Your task to perform on an android device: move a message to another label in the gmail app Image 0: 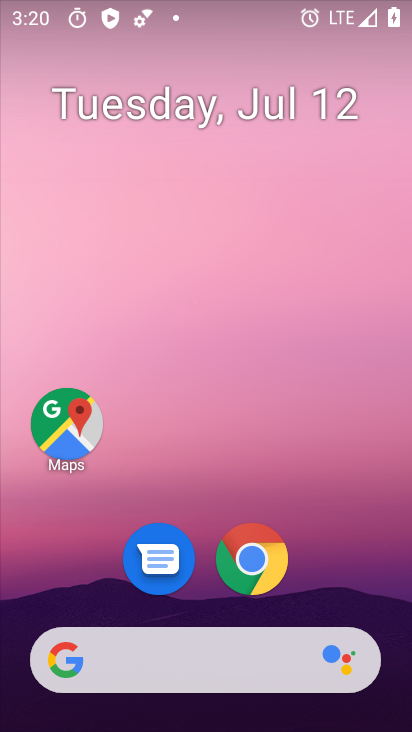
Step 0: drag from (366, 588) to (369, 204)
Your task to perform on an android device: move a message to another label in the gmail app Image 1: 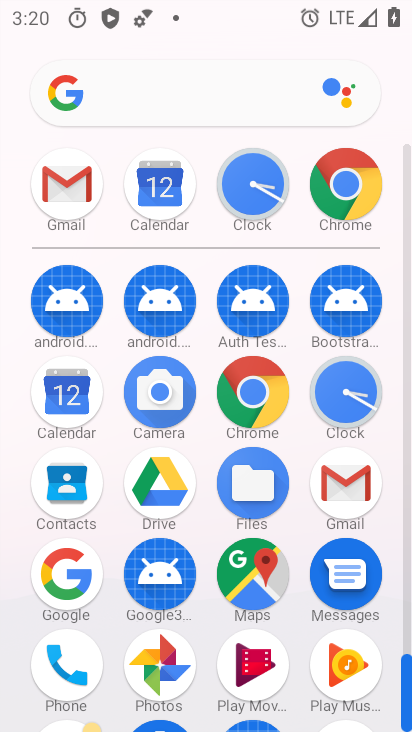
Step 1: click (350, 476)
Your task to perform on an android device: move a message to another label in the gmail app Image 2: 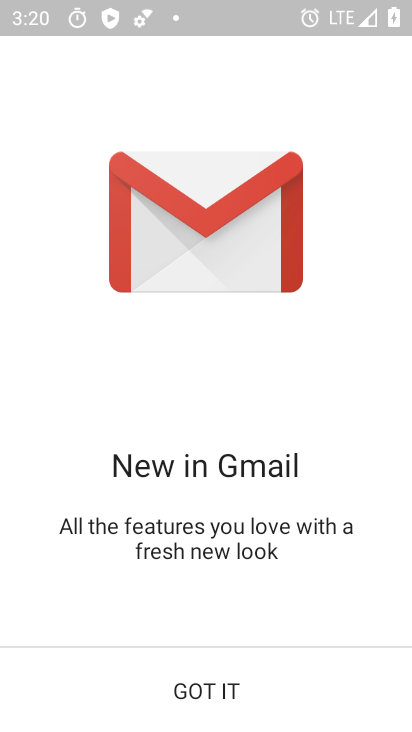
Step 2: click (227, 675)
Your task to perform on an android device: move a message to another label in the gmail app Image 3: 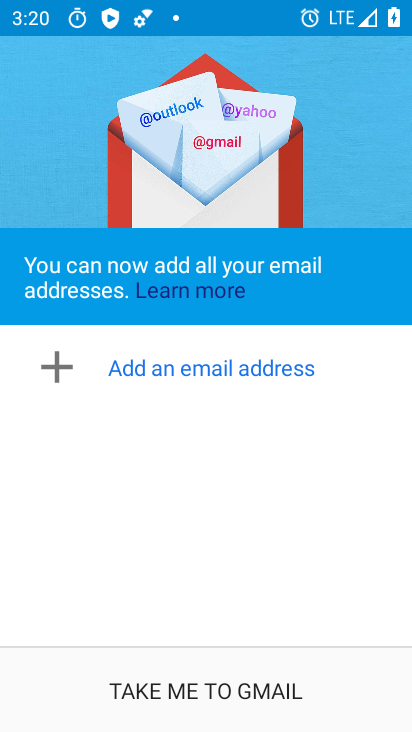
Step 3: click (227, 675)
Your task to perform on an android device: move a message to another label in the gmail app Image 4: 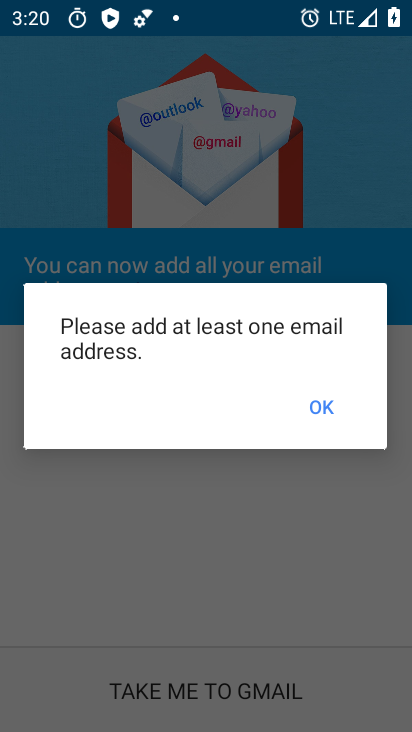
Step 4: task complete